Your task to perform on an android device: turn on location history Image 0: 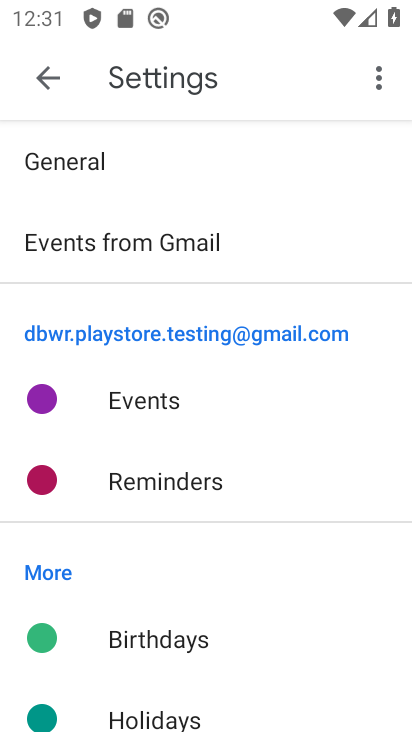
Step 0: press home button
Your task to perform on an android device: turn on location history Image 1: 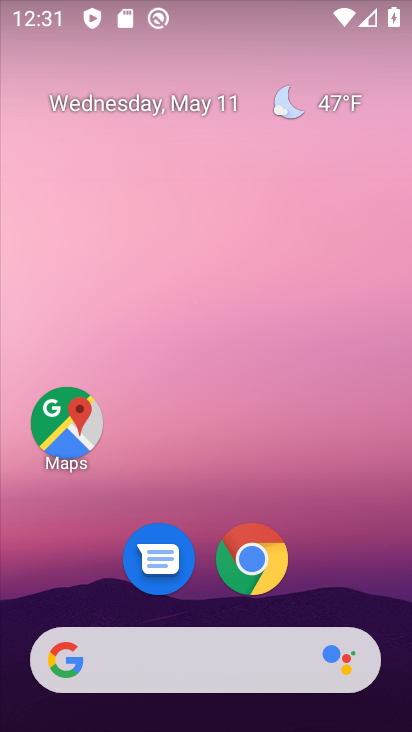
Step 1: drag from (207, 596) to (247, 53)
Your task to perform on an android device: turn on location history Image 2: 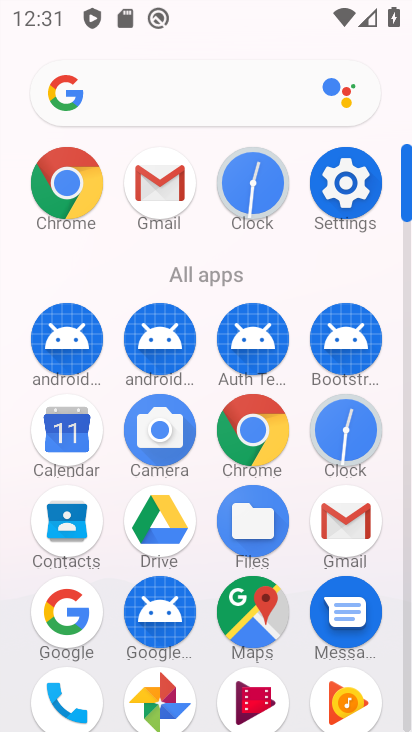
Step 2: click (352, 188)
Your task to perform on an android device: turn on location history Image 3: 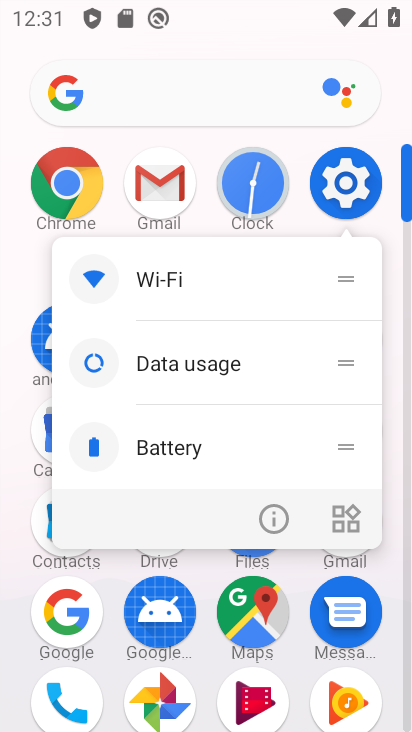
Step 3: click (338, 207)
Your task to perform on an android device: turn on location history Image 4: 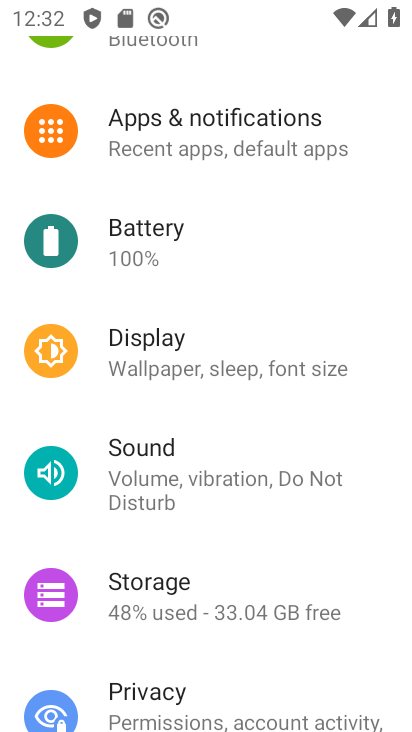
Step 4: drag from (261, 601) to (290, 295)
Your task to perform on an android device: turn on location history Image 5: 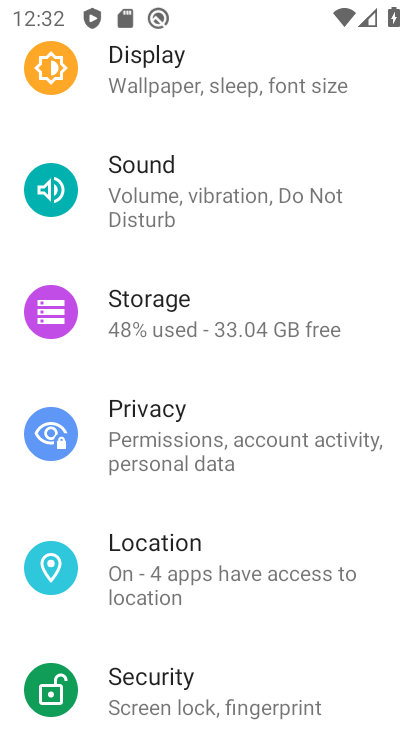
Step 5: click (182, 573)
Your task to perform on an android device: turn on location history Image 6: 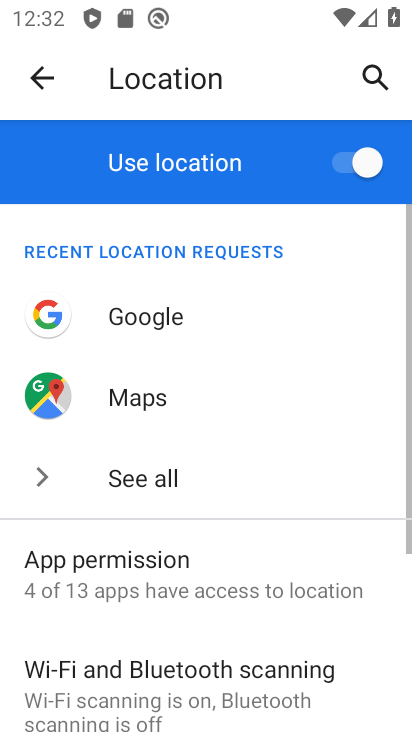
Step 6: drag from (201, 621) to (244, 358)
Your task to perform on an android device: turn on location history Image 7: 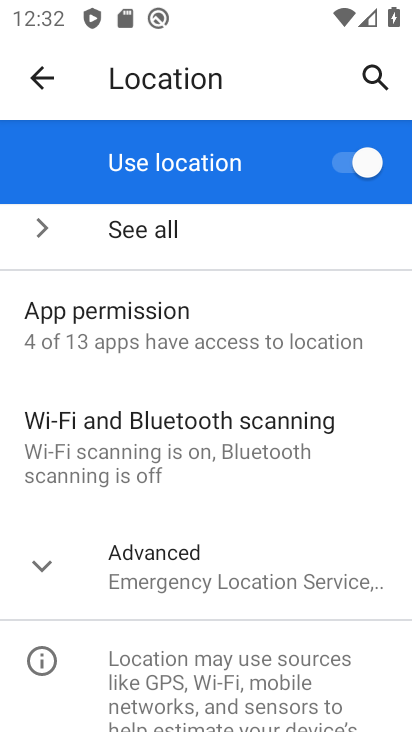
Step 7: click (205, 578)
Your task to perform on an android device: turn on location history Image 8: 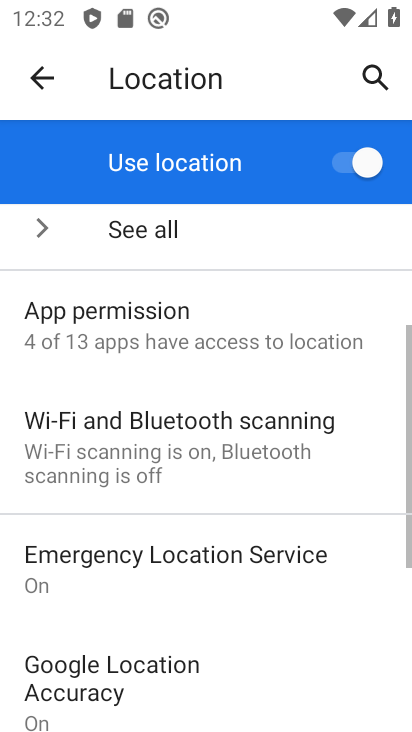
Step 8: drag from (218, 505) to (234, 430)
Your task to perform on an android device: turn on location history Image 9: 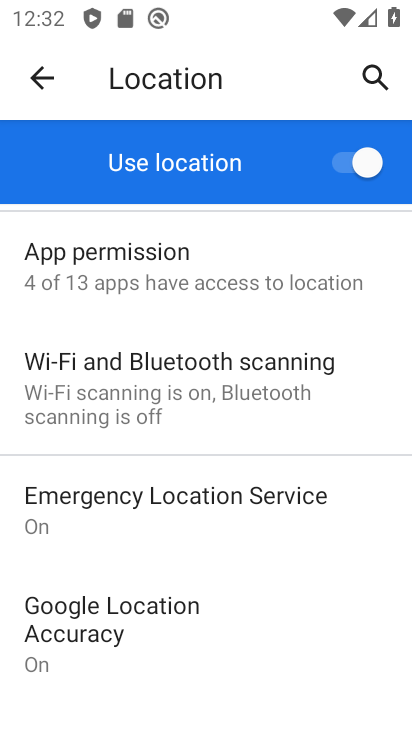
Step 9: drag from (182, 626) to (223, 352)
Your task to perform on an android device: turn on location history Image 10: 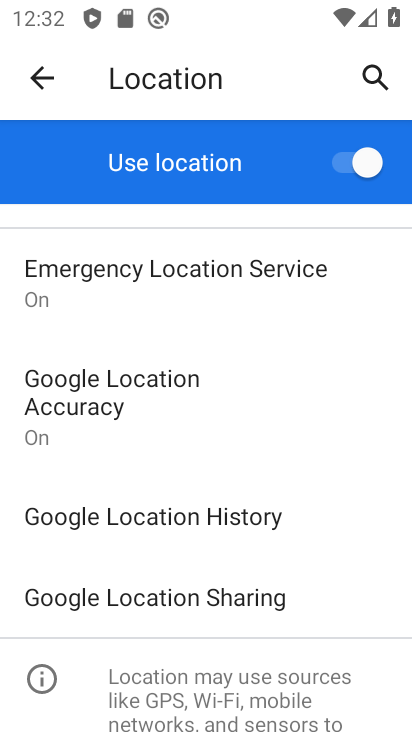
Step 10: click (200, 535)
Your task to perform on an android device: turn on location history Image 11: 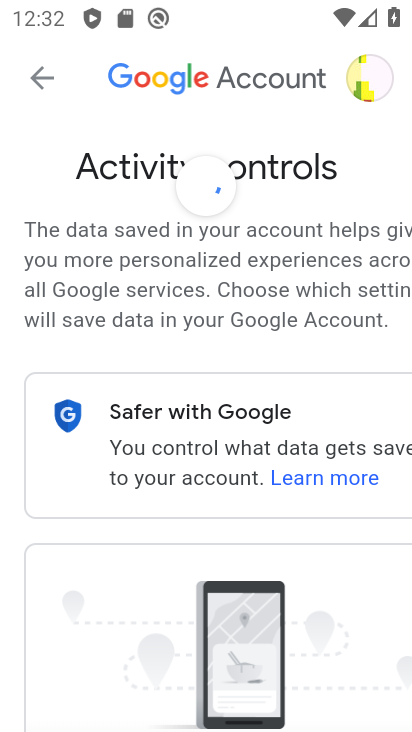
Step 11: drag from (201, 553) to (243, 167)
Your task to perform on an android device: turn on location history Image 12: 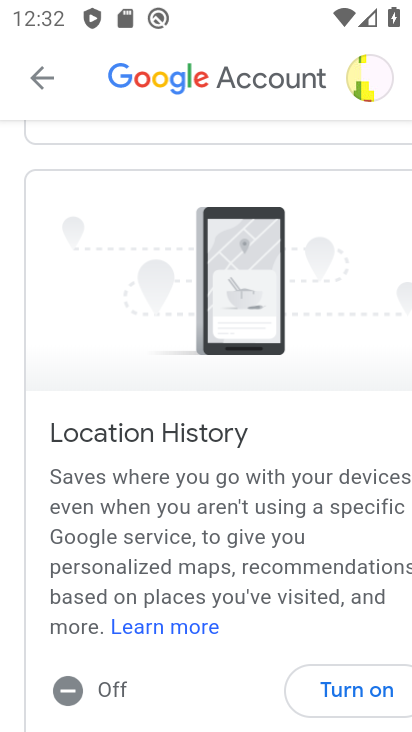
Step 12: drag from (225, 638) to (246, 447)
Your task to perform on an android device: turn on location history Image 13: 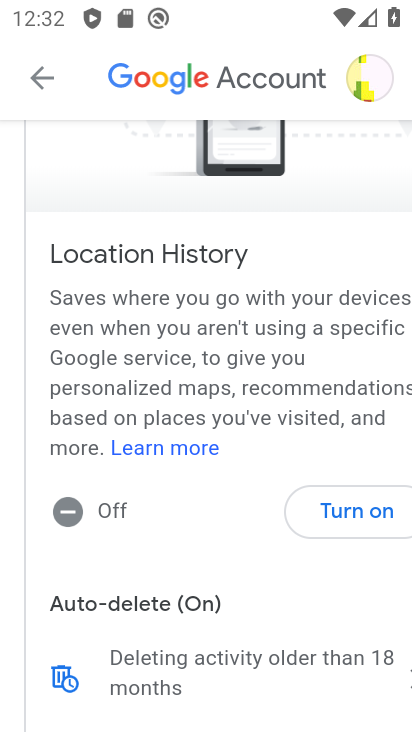
Step 13: click (326, 511)
Your task to perform on an android device: turn on location history Image 14: 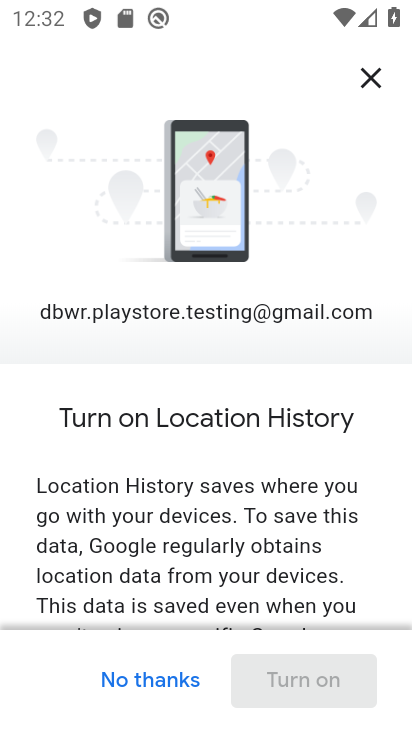
Step 14: drag from (262, 594) to (301, 184)
Your task to perform on an android device: turn on location history Image 15: 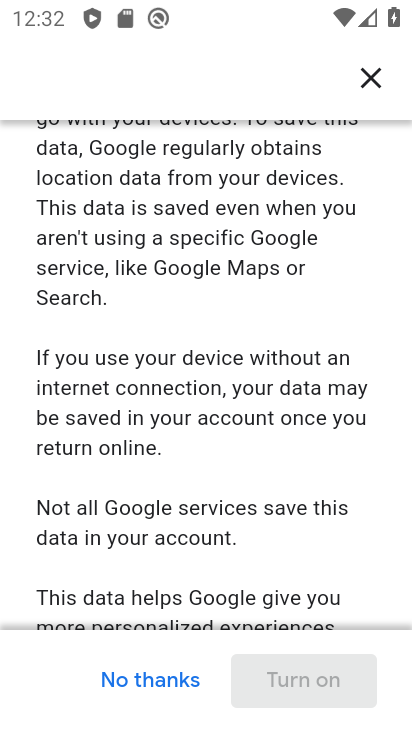
Step 15: drag from (234, 553) to (248, 39)
Your task to perform on an android device: turn on location history Image 16: 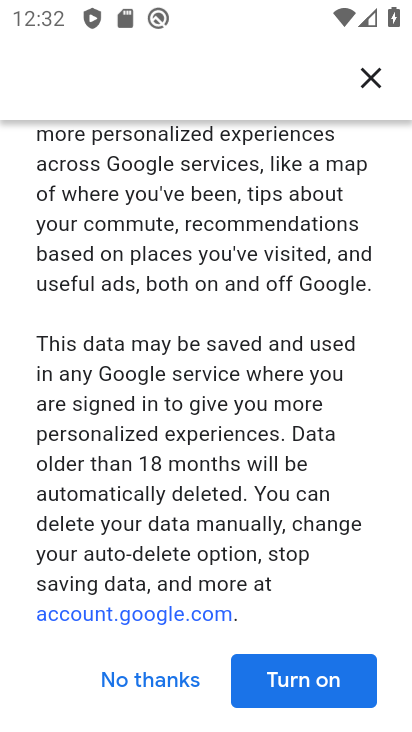
Step 16: click (314, 692)
Your task to perform on an android device: turn on location history Image 17: 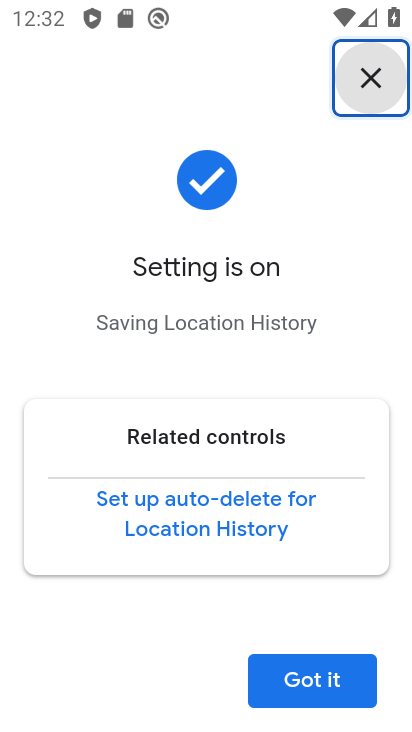
Step 17: click (339, 696)
Your task to perform on an android device: turn on location history Image 18: 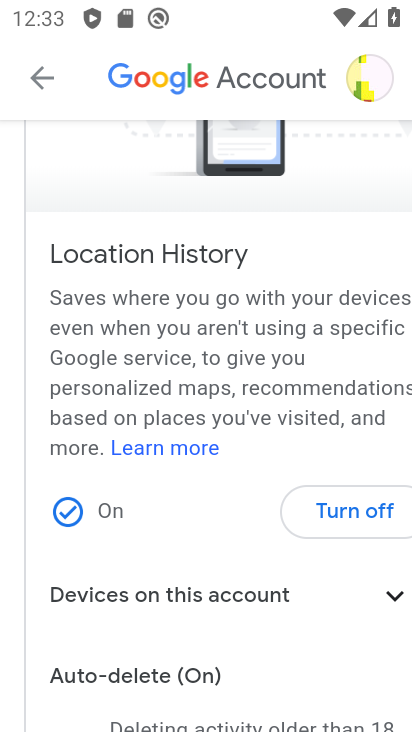
Step 18: task complete